Your task to perform on an android device: Go to battery settings Image 0: 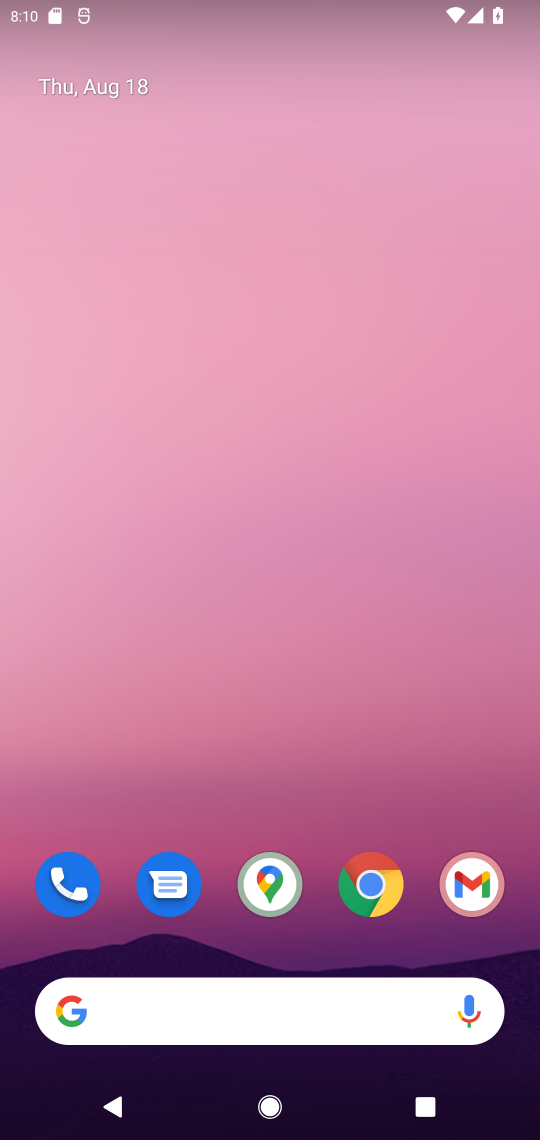
Step 0: drag from (261, 15) to (271, 1128)
Your task to perform on an android device: Go to battery settings Image 1: 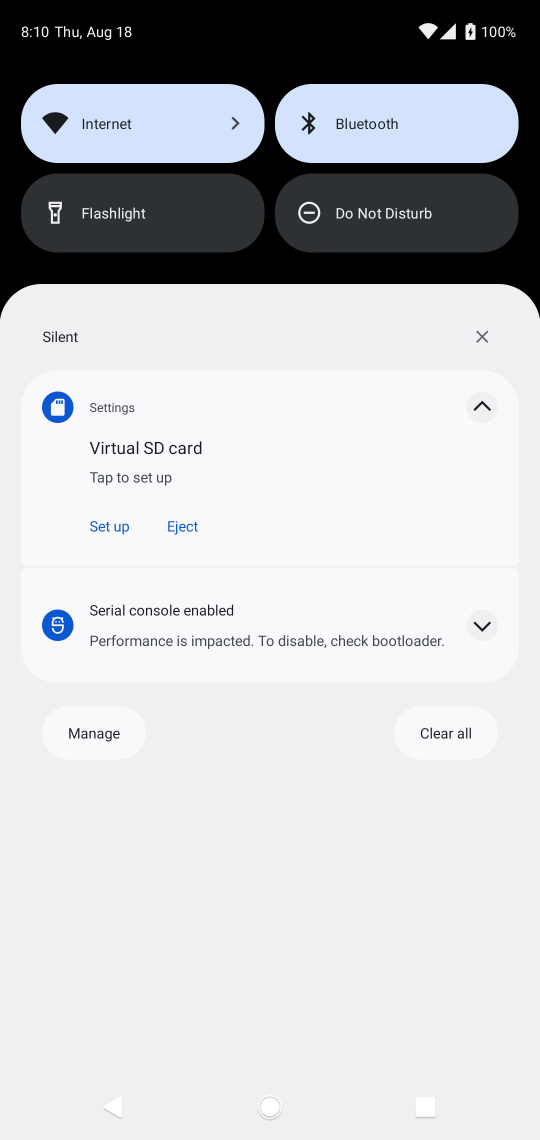
Step 1: drag from (258, 73) to (391, 976)
Your task to perform on an android device: Go to battery settings Image 2: 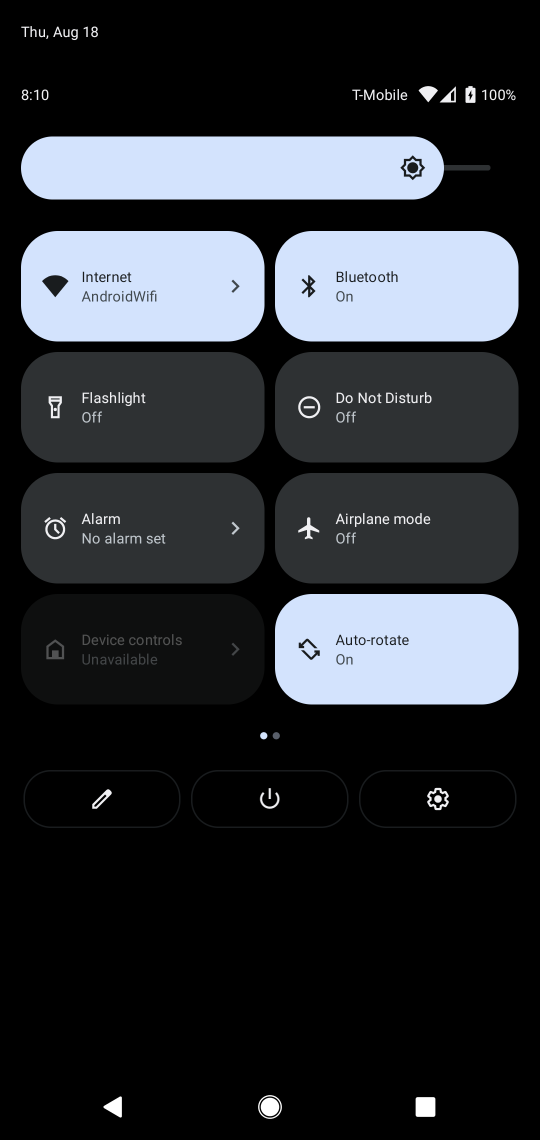
Step 2: drag from (391, 732) to (38, 698)
Your task to perform on an android device: Go to battery settings Image 3: 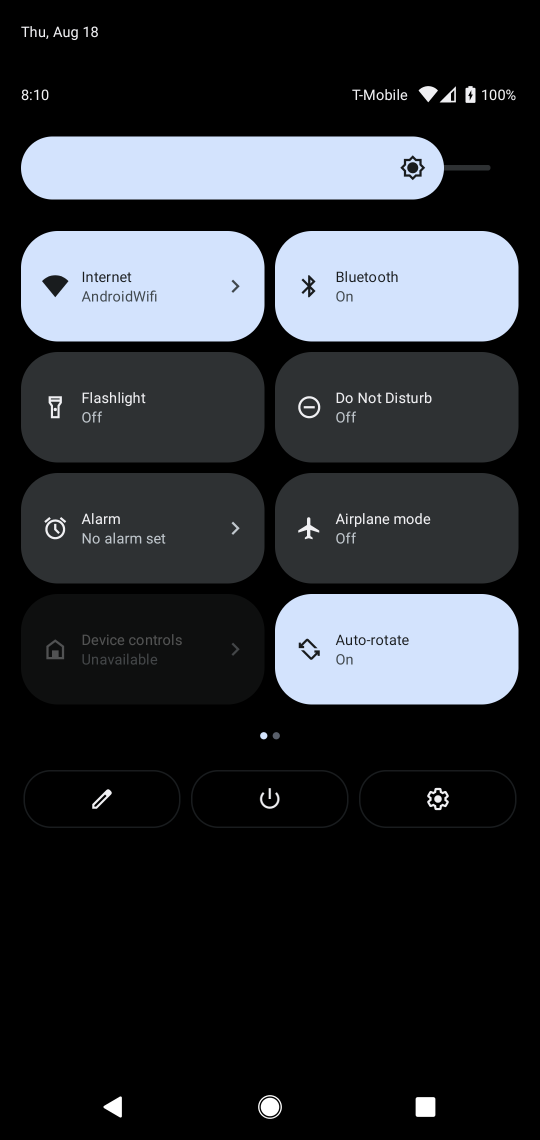
Step 3: drag from (513, 751) to (63, 723)
Your task to perform on an android device: Go to battery settings Image 4: 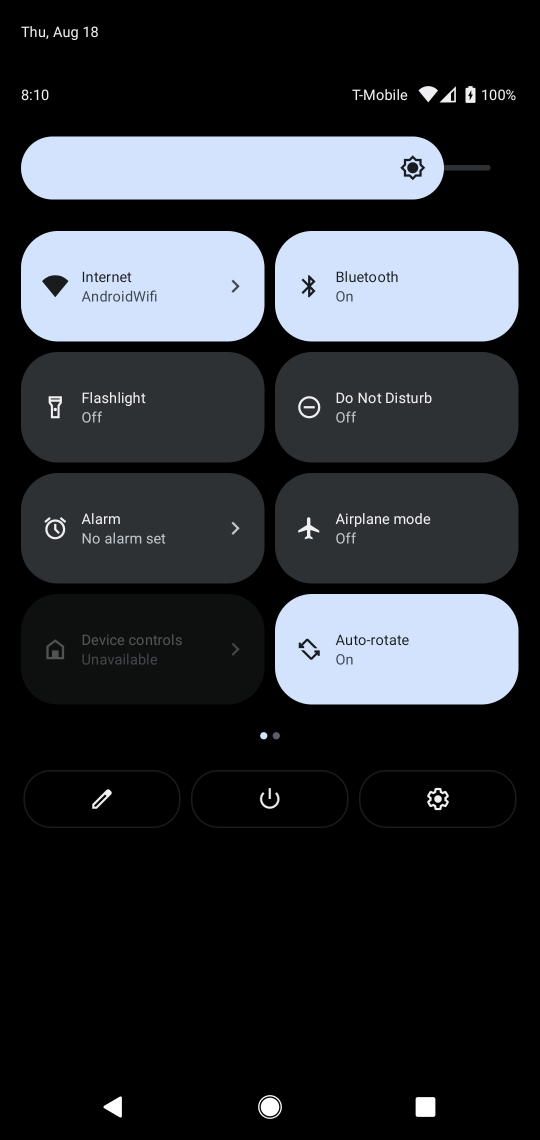
Step 4: drag from (519, 467) to (41, 468)
Your task to perform on an android device: Go to battery settings Image 5: 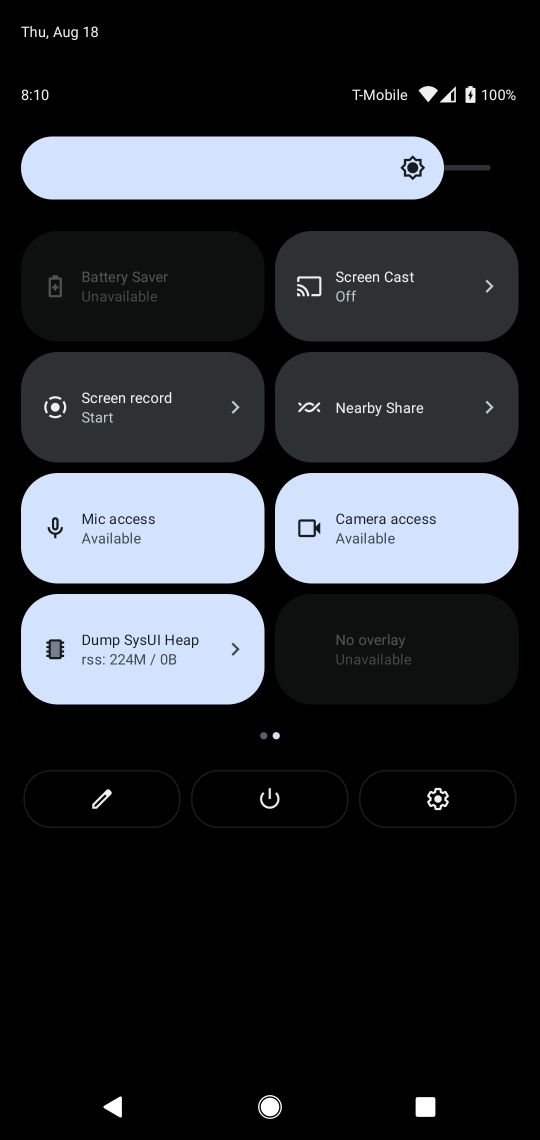
Step 5: click (145, 267)
Your task to perform on an android device: Go to battery settings Image 6: 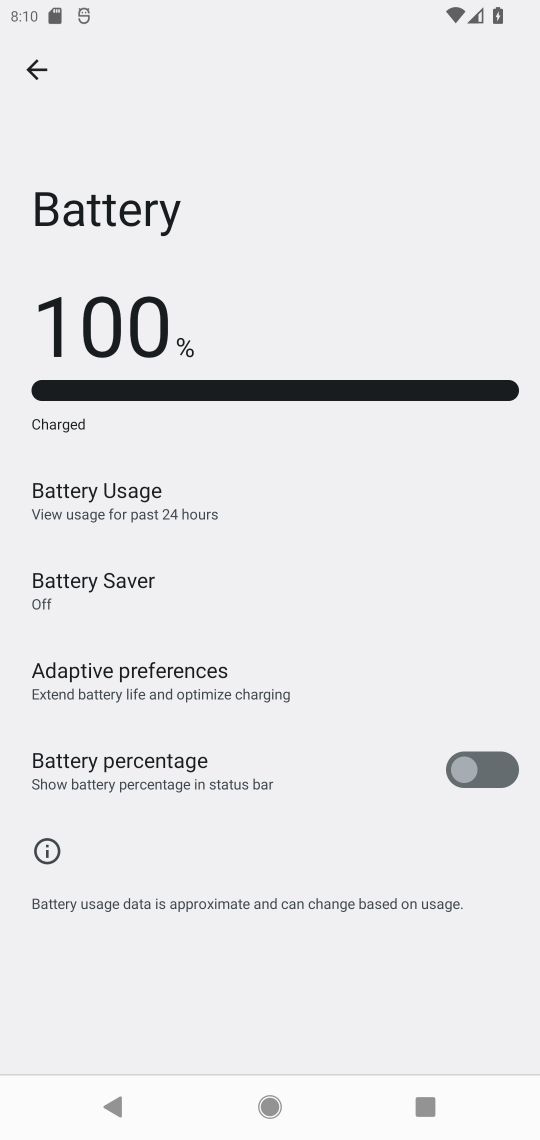
Step 6: task complete